Your task to perform on an android device: What's the top post on reddit today? Image 0: 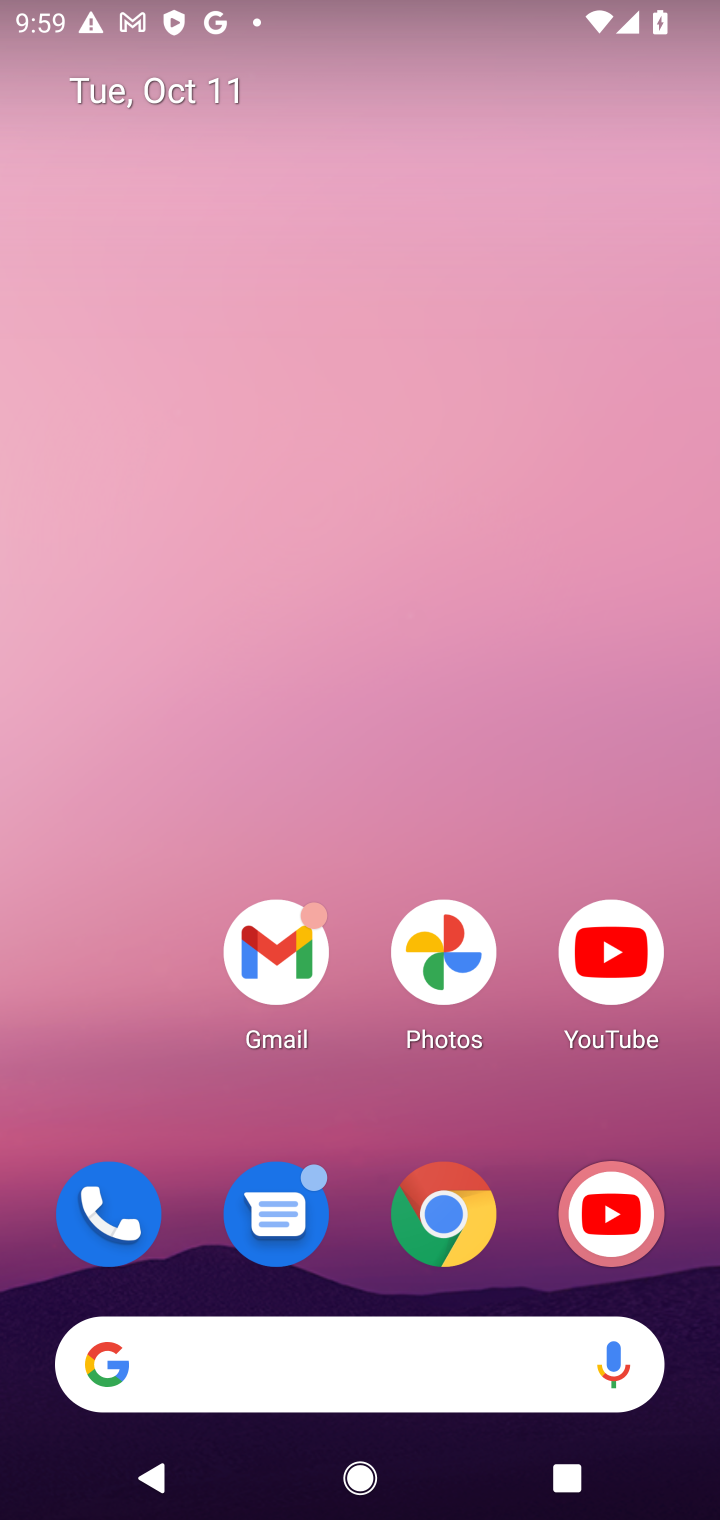
Step 0: drag from (453, 1026) to (186, 17)
Your task to perform on an android device: What's the top post on reddit today? Image 1: 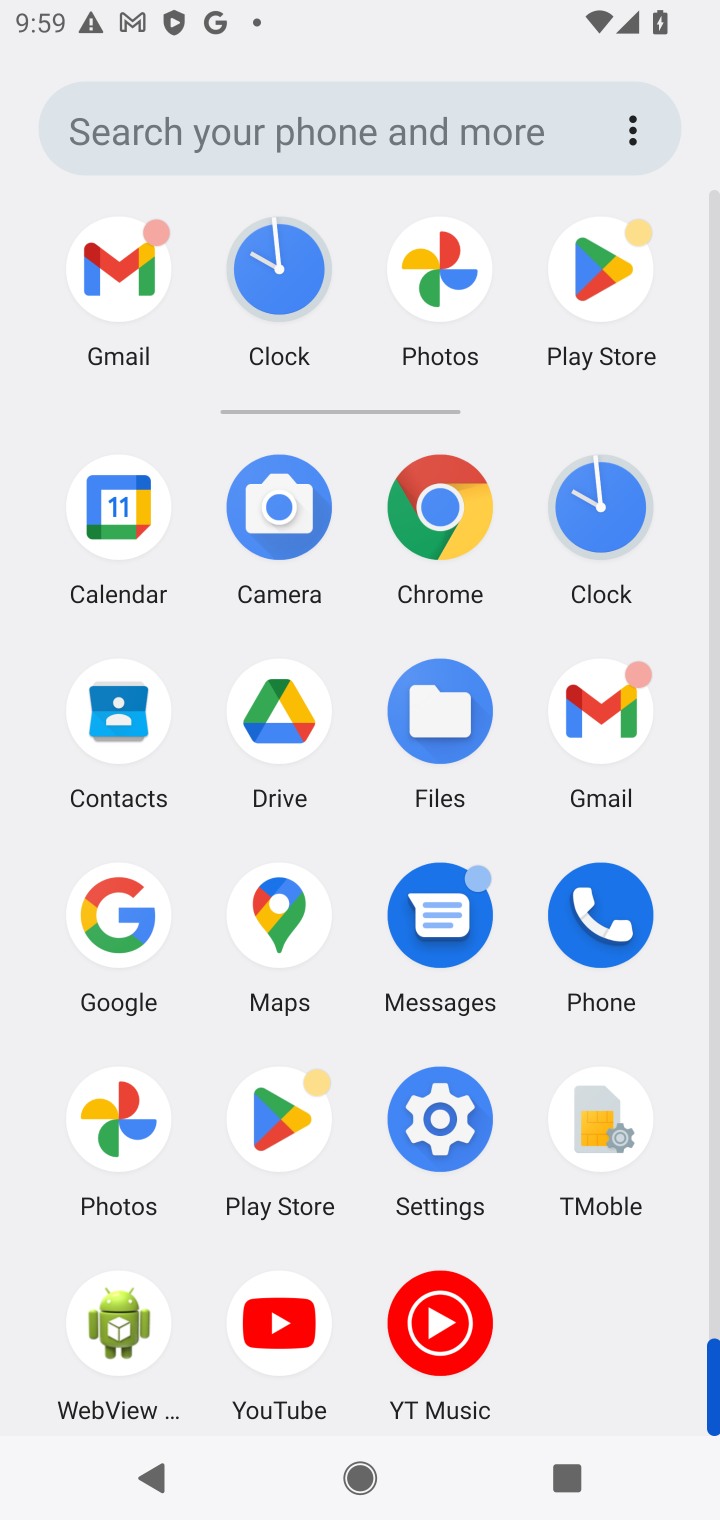
Step 1: click (452, 505)
Your task to perform on an android device: What's the top post on reddit today? Image 2: 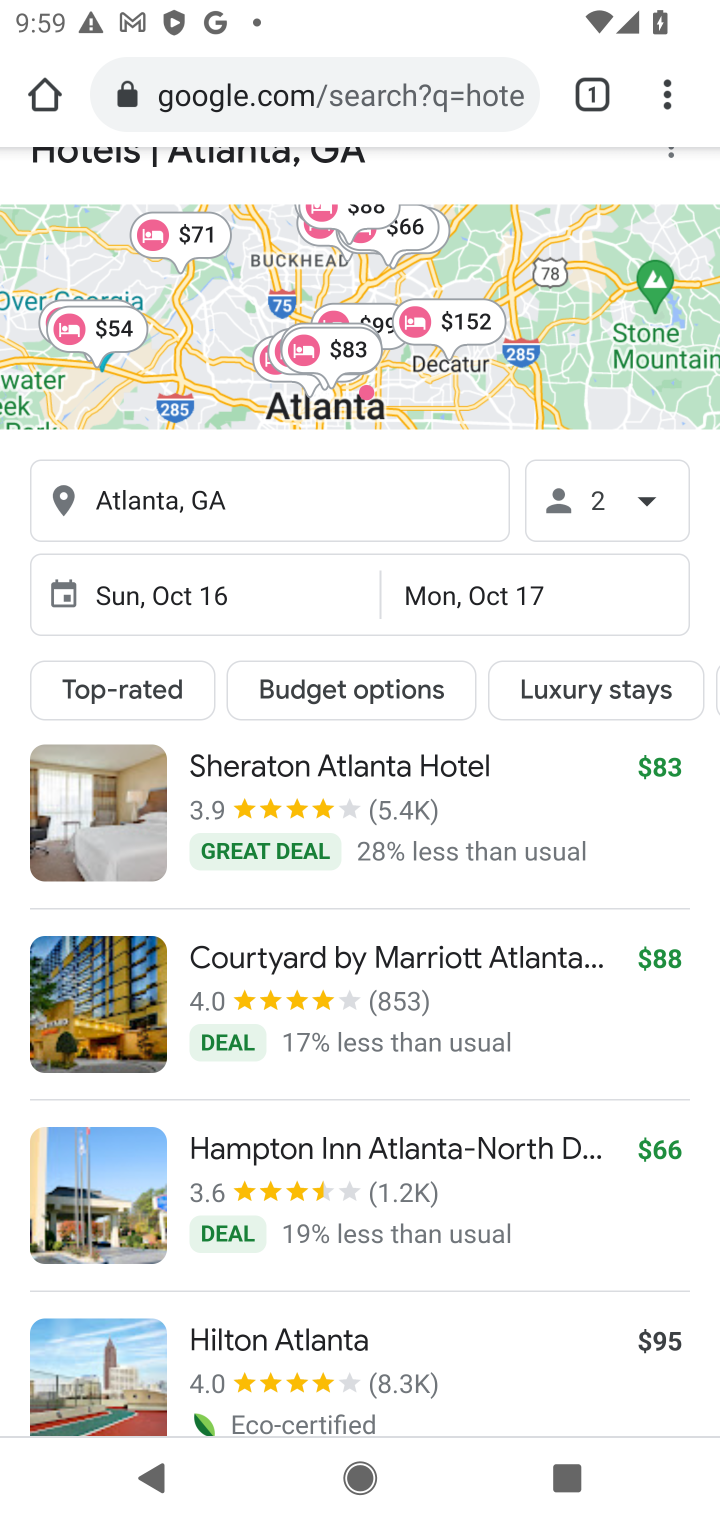
Step 2: click (321, 109)
Your task to perform on an android device: What's the top post on reddit today? Image 3: 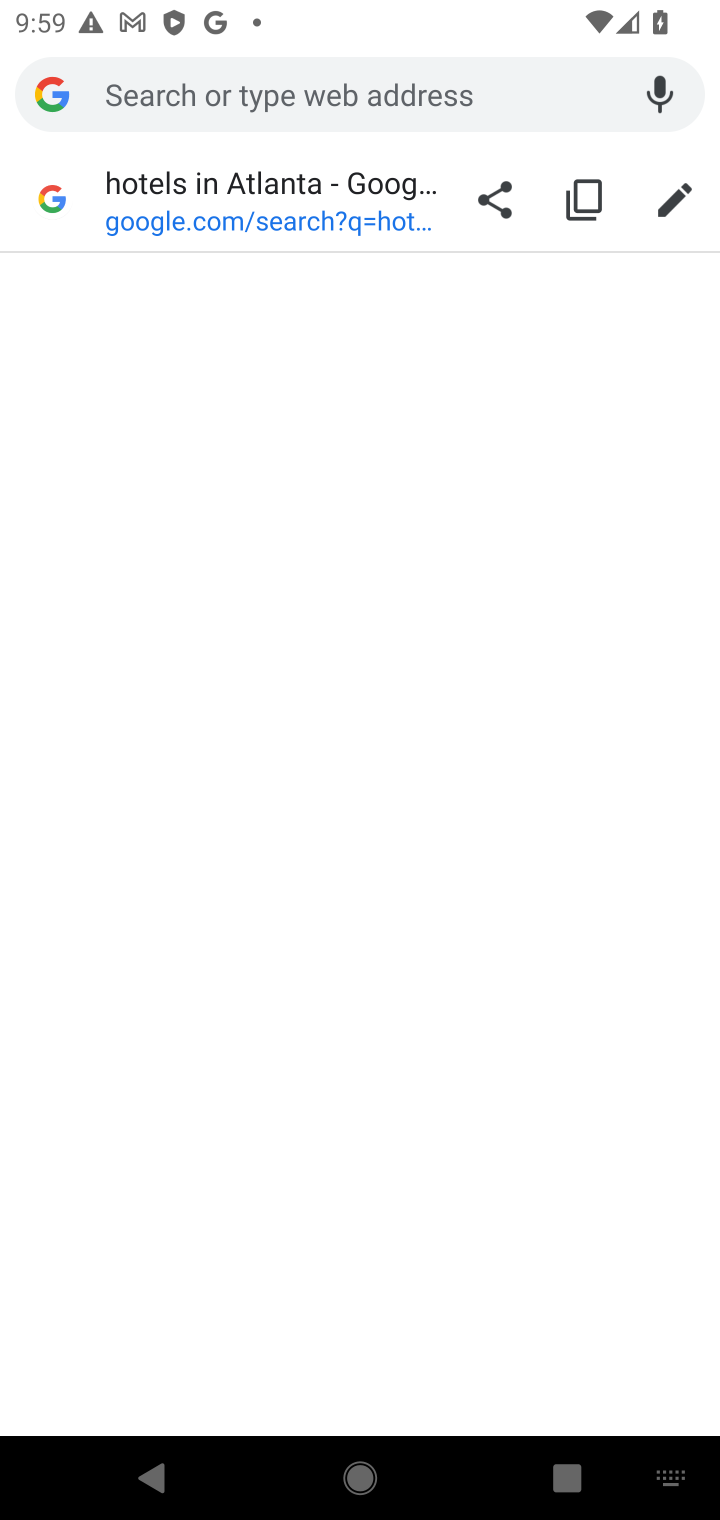
Step 3: type "top post on reddit today"
Your task to perform on an android device: What's the top post on reddit today? Image 4: 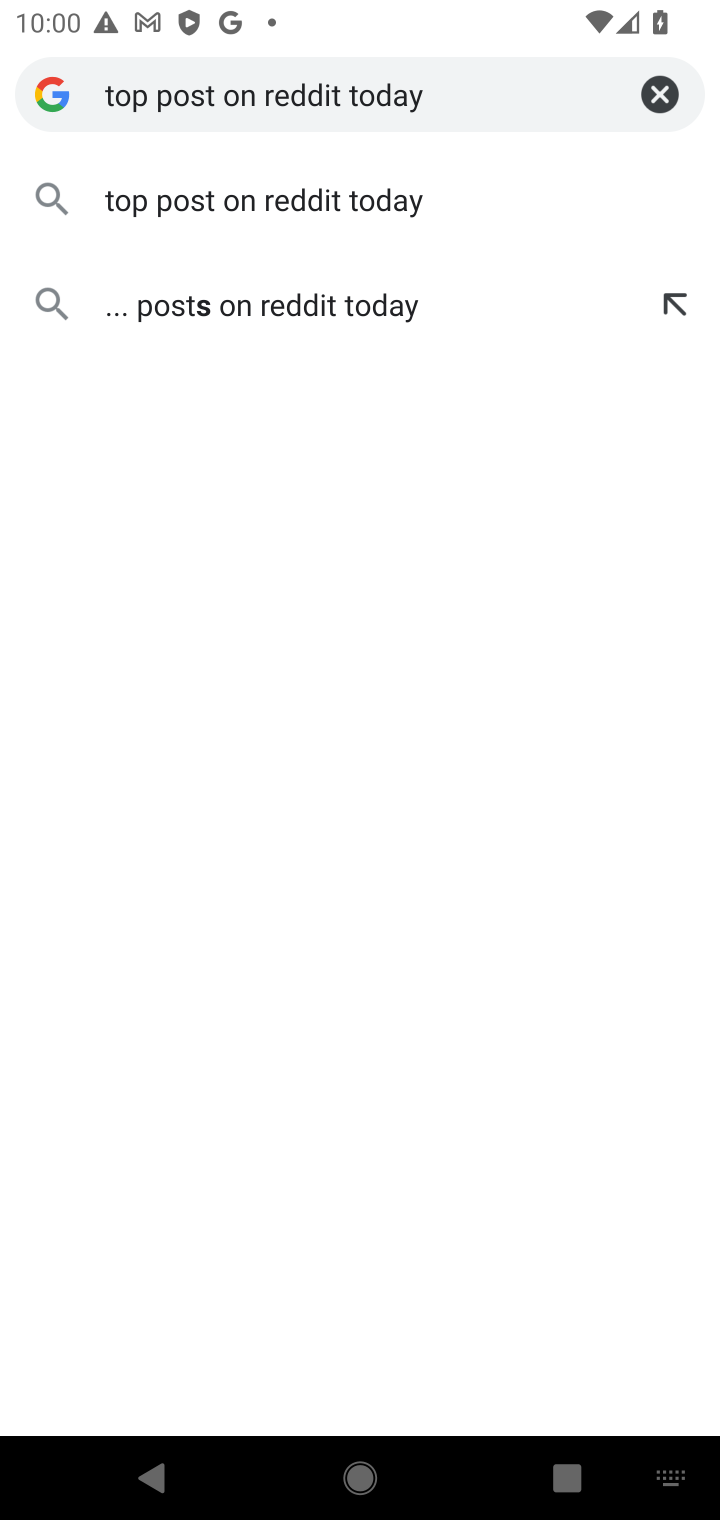
Step 4: press enter
Your task to perform on an android device: What's the top post on reddit today? Image 5: 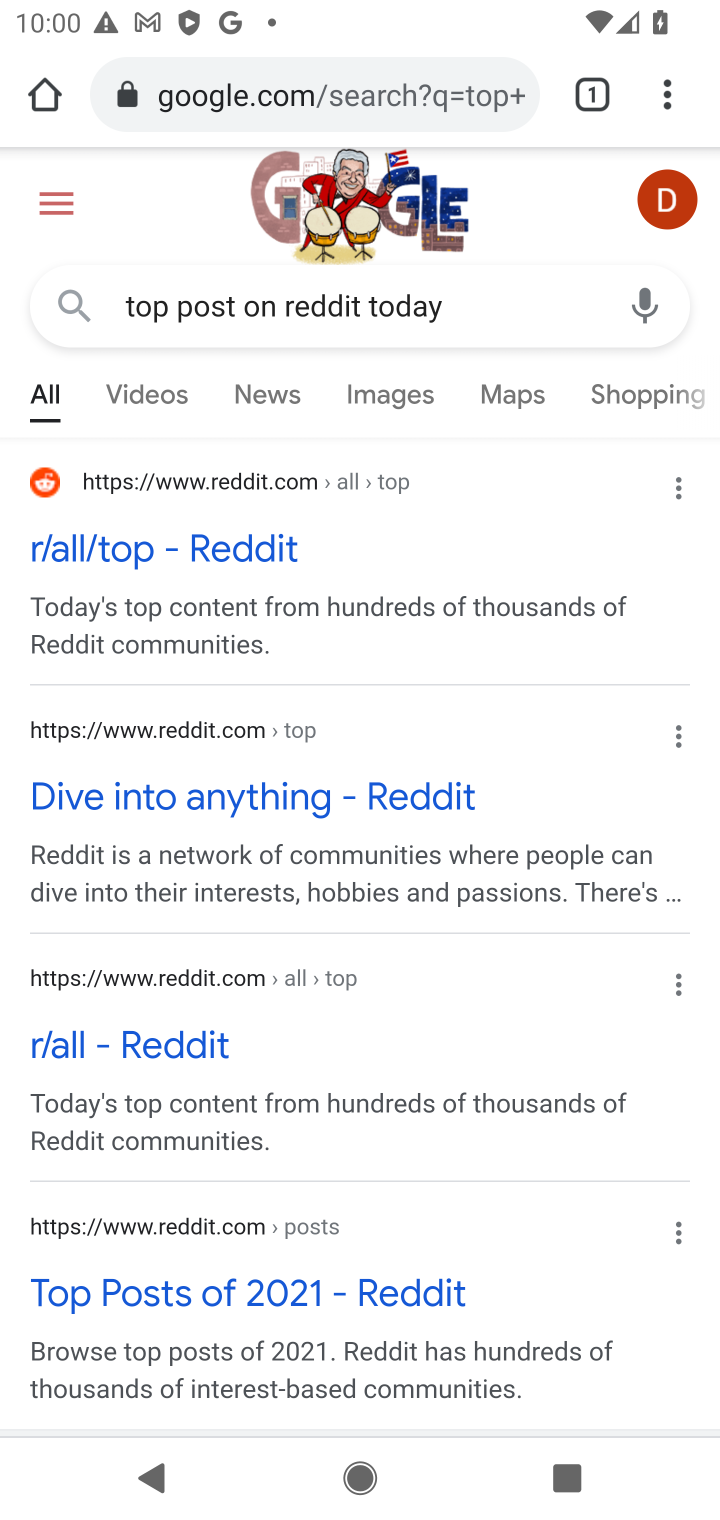
Step 5: click (197, 547)
Your task to perform on an android device: What's the top post on reddit today? Image 6: 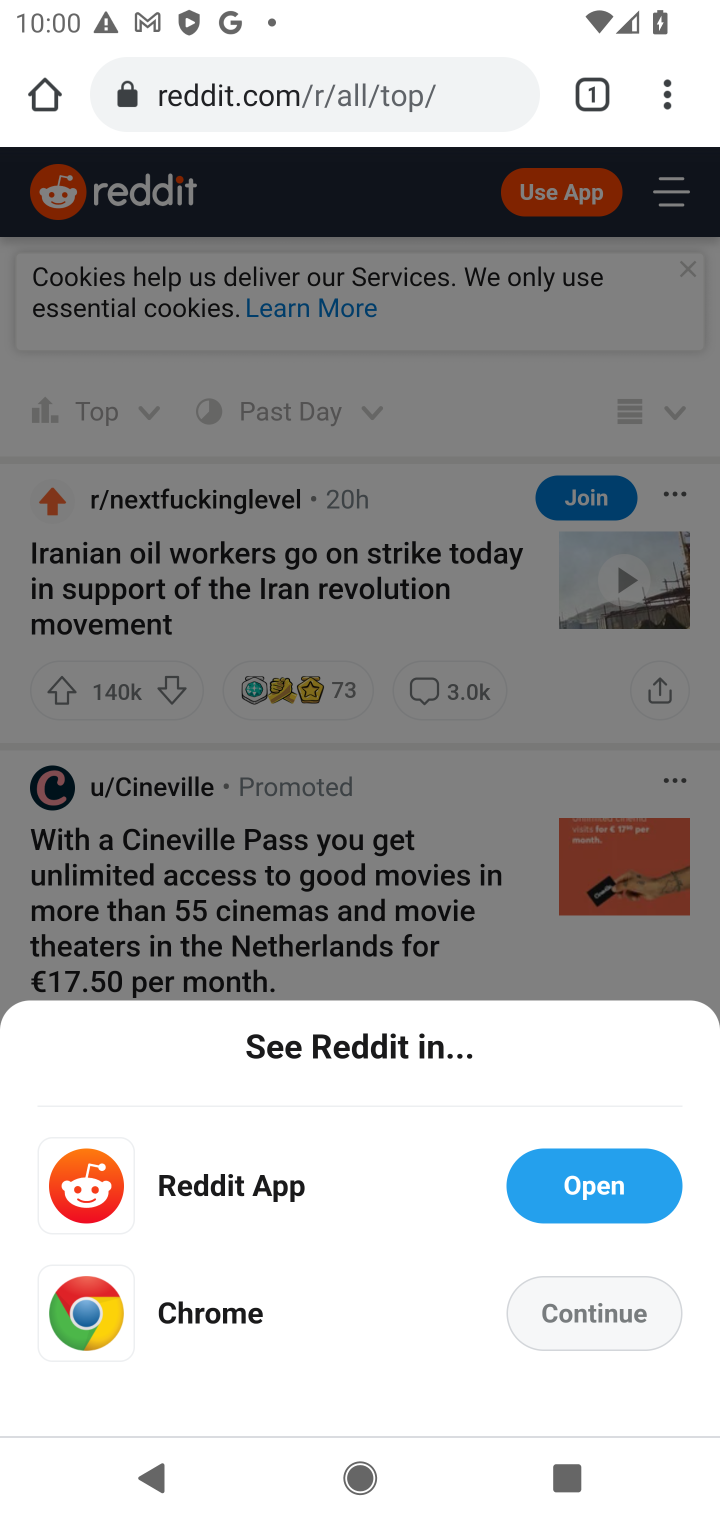
Step 6: click (566, 1336)
Your task to perform on an android device: What's the top post on reddit today? Image 7: 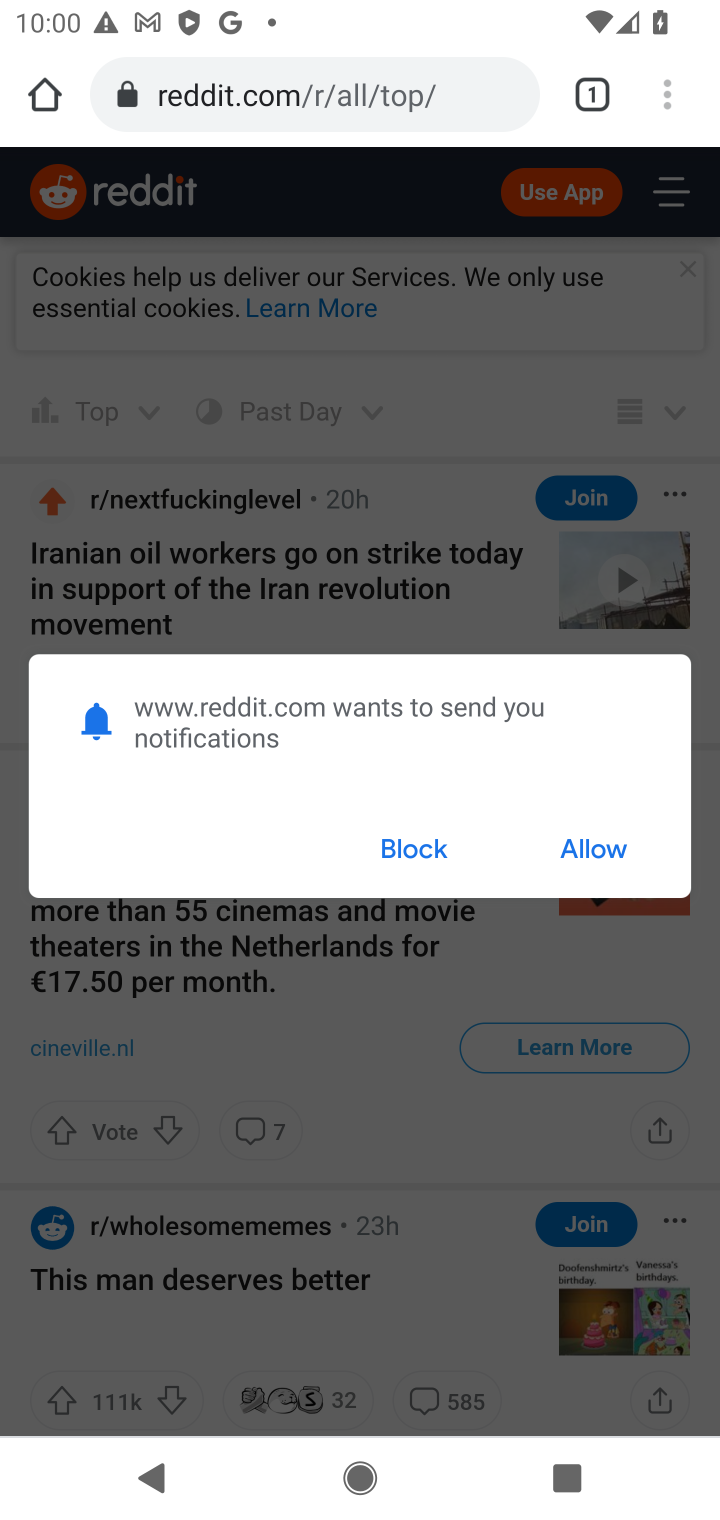
Step 7: click (401, 842)
Your task to perform on an android device: What's the top post on reddit today? Image 8: 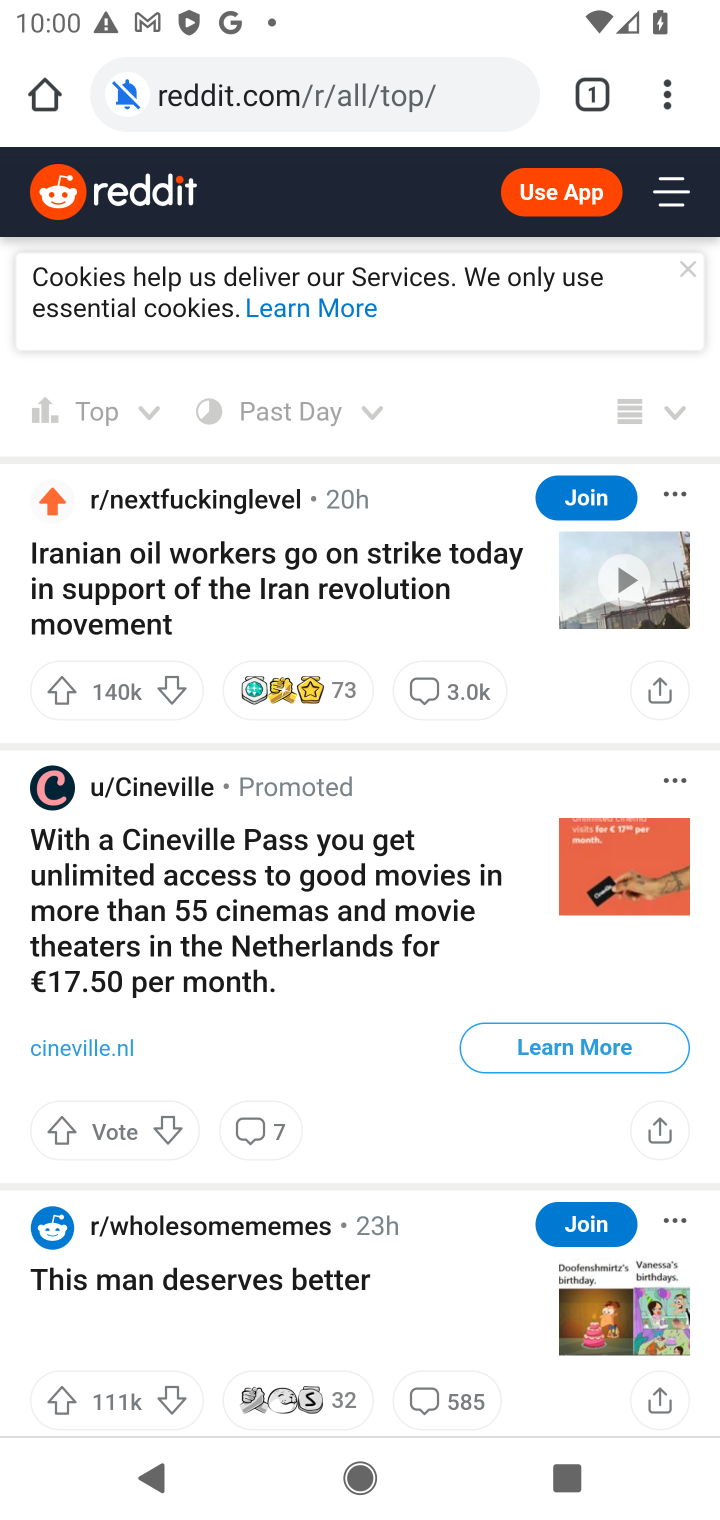
Step 8: task complete